Your task to perform on an android device: check battery use Image 0: 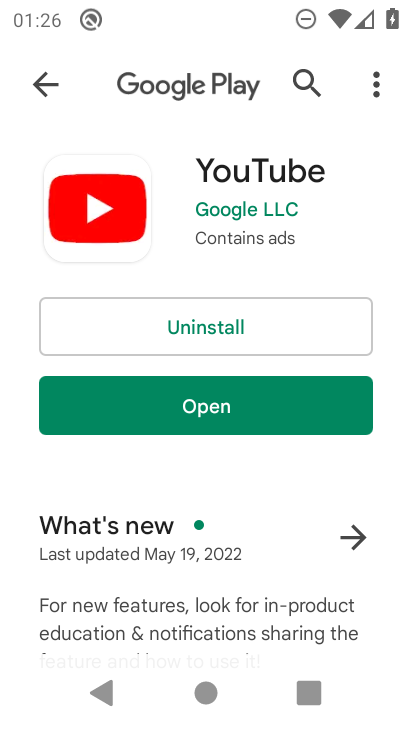
Step 0: drag from (261, 585) to (326, 205)
Your task to perform on an android device: check battery use Image 1: 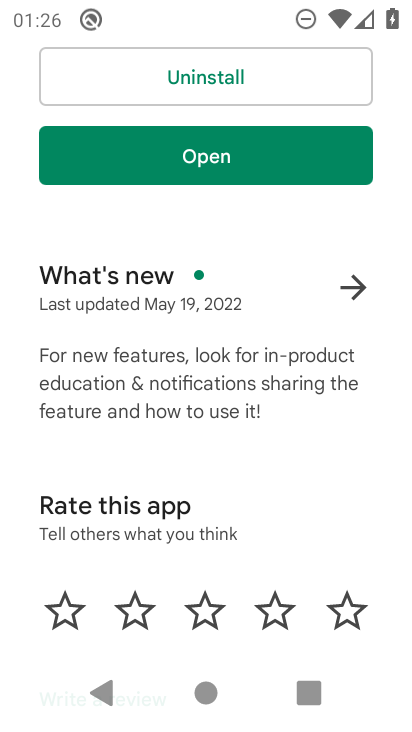
Step 1: press home button
Your task to perform on an android device: check battery use Image 2: 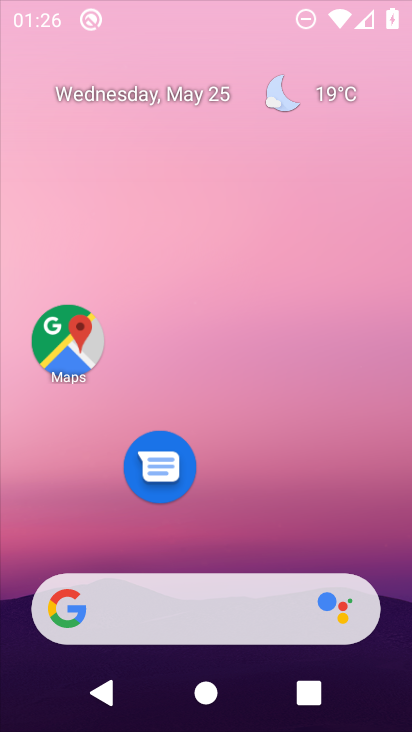
Step 2: drag from (227, 527) to (299, 142)
Your task to perform on an android device: check battery use Image 3: 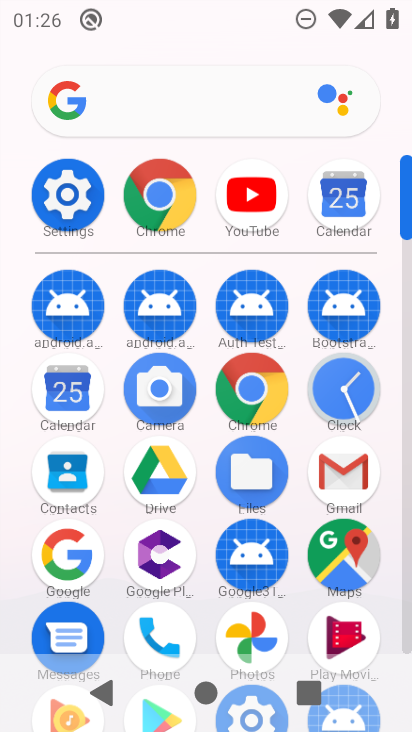
Step 3: click (68, 200)
Your task to perform on an android device: check battery use Image 4: 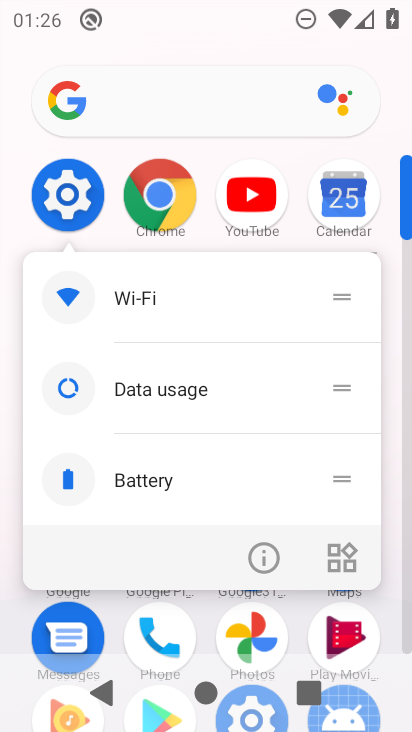
Step 4: click (271, 561)
Your task to perform on an android device: check battery use Image 5: 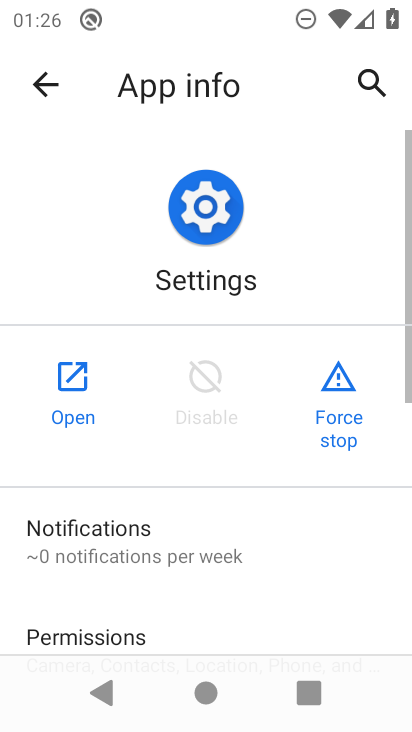
Step 5: click (73, 373)
Your task to perform on an android device: check battery use Image 6: 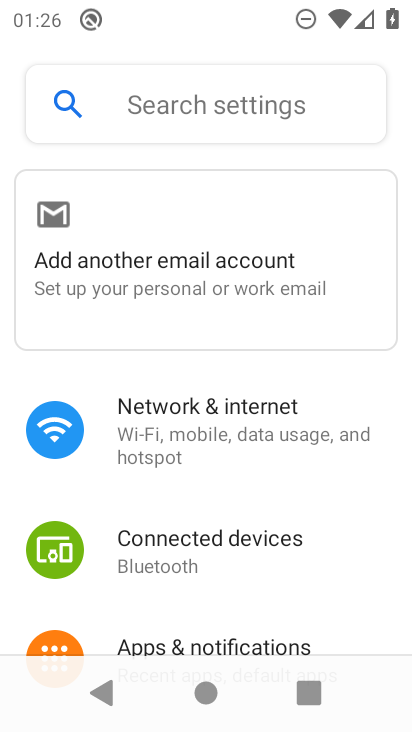
Step 6: drag from (235, 600) to (332, 129)
Your task to perform on an android device: check battery use Image 7: 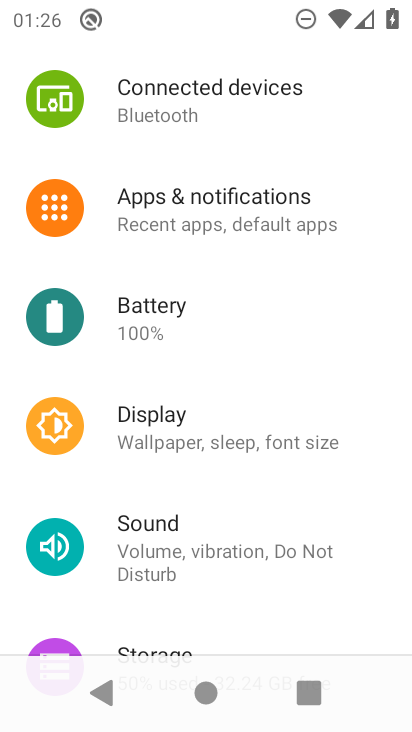
Step 7: click (190, 309)
Your task to perform on an android device: check battery use Image 8: 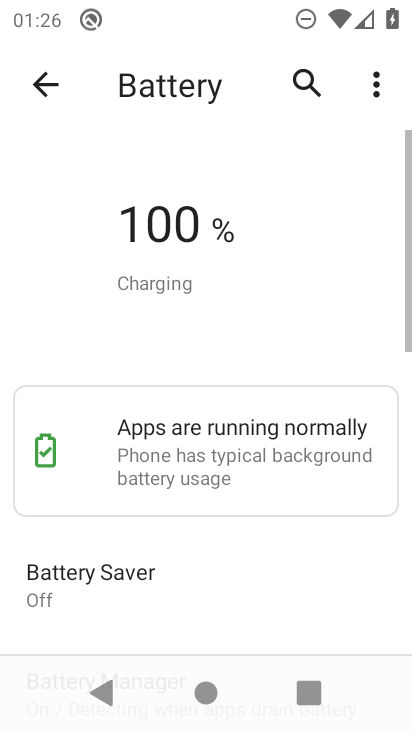
Step 8: drag from (248, 566) to (340, 254)
Your task to perform on an android device: check battery use Image 9: 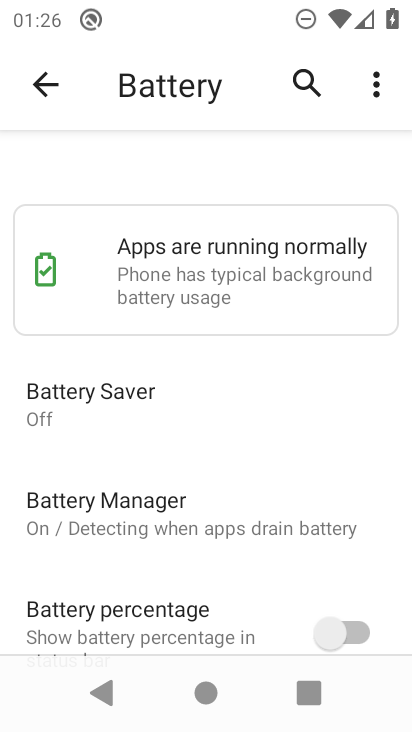
Step 9: drag from (268, 538) to (313, 233)
Your task to perform on an android device: check battery use Image 10: 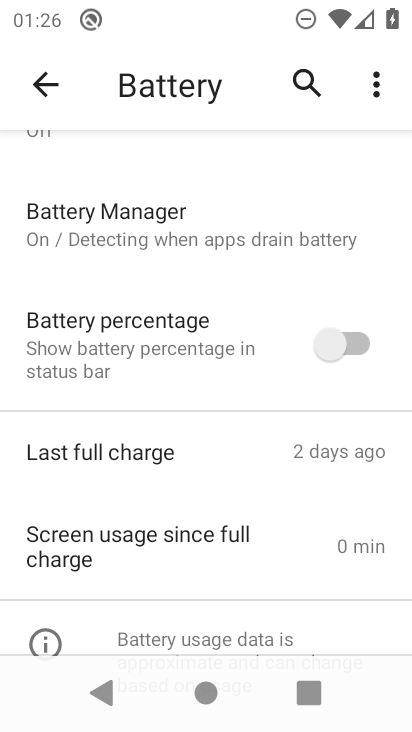
Step 10: drag from (216, 291) to (238, 560)
Your task to perform on an android device: check battery use Image 11: 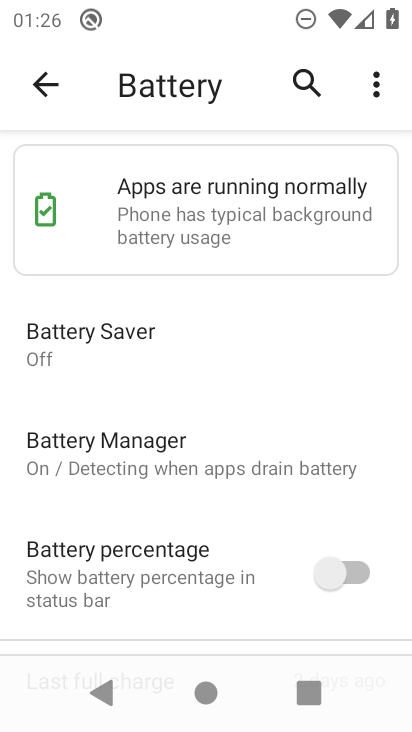
Step 11: click (367, 98)
Your task to perform on an android device: check battery use Image 12: 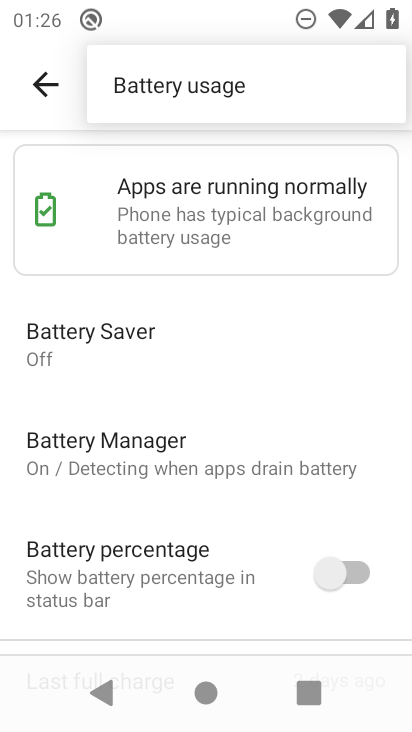
Step 12: click (300, 82)
Your task to perform on an android device: check battery use Image 13: 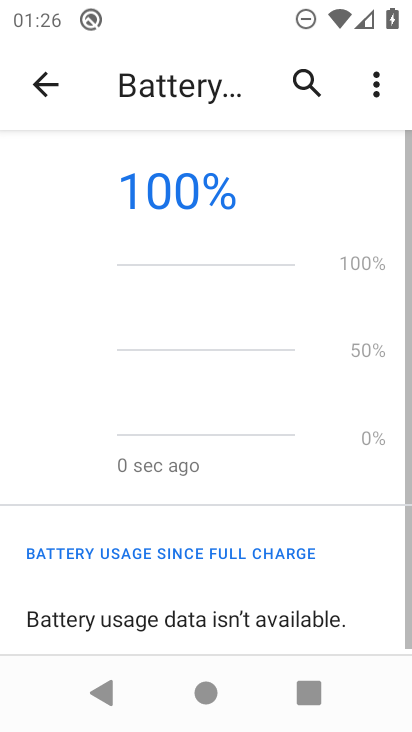
Step 13: task complete